Your task to perform on an android device: change the clock display to analog Image 0: 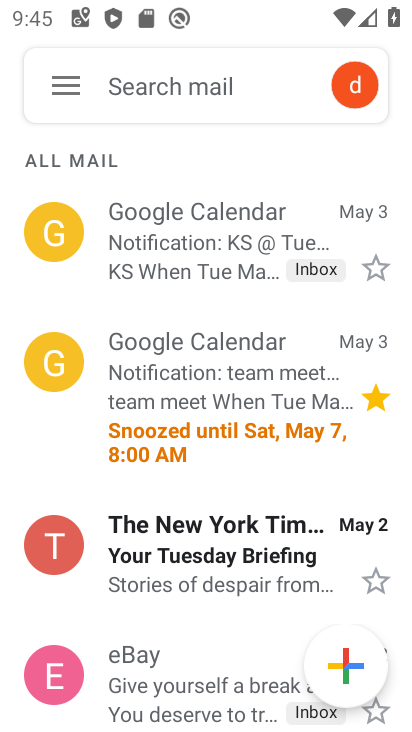
Step 0: press home button
Your task to perform on an android device: change the clock display to analog Image 1: 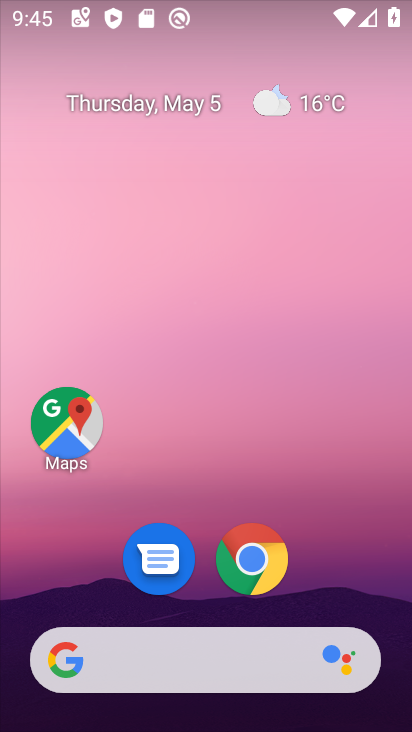
Step 1: drag from (209, 603) to (222, 98)
Your task to perform on an android device: change the clock display to analog Image 2: 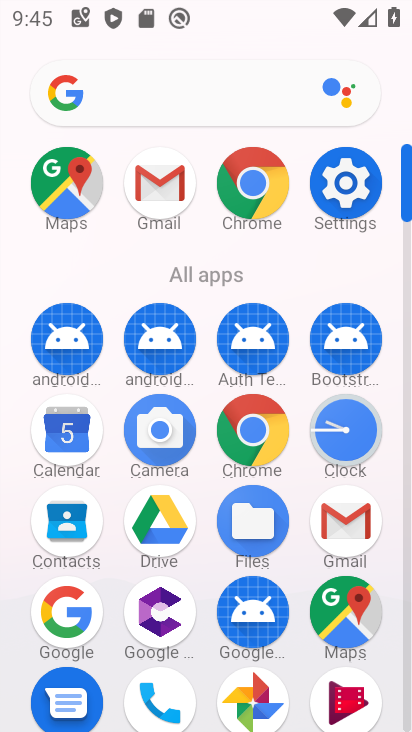
Step 2: click (355, 443)
Your task to perform on an android device: change the clock display to analog Image 3: 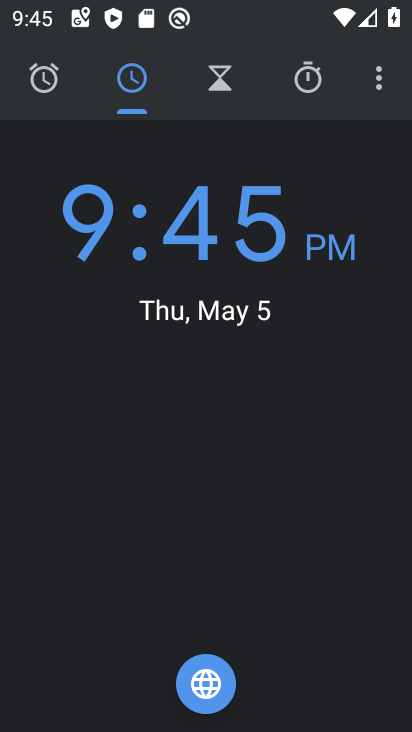
Step 3: click (386, 93)
Your task to perform on an android device: change the clock display to analog Image 4: 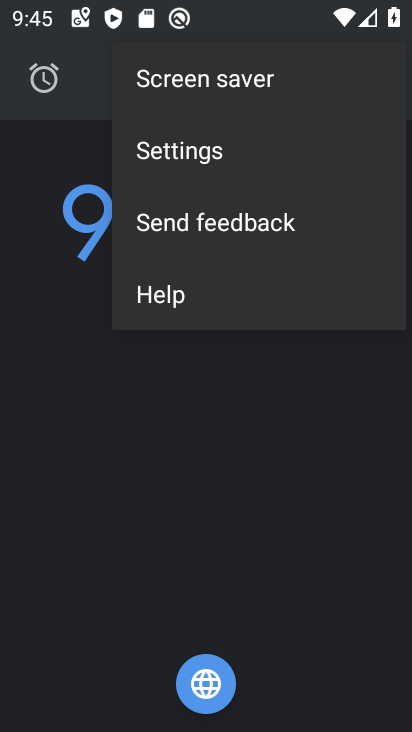
Step 4: click (207, 169)
Your task to perform on an android device: change the clock display to analog Image 5: 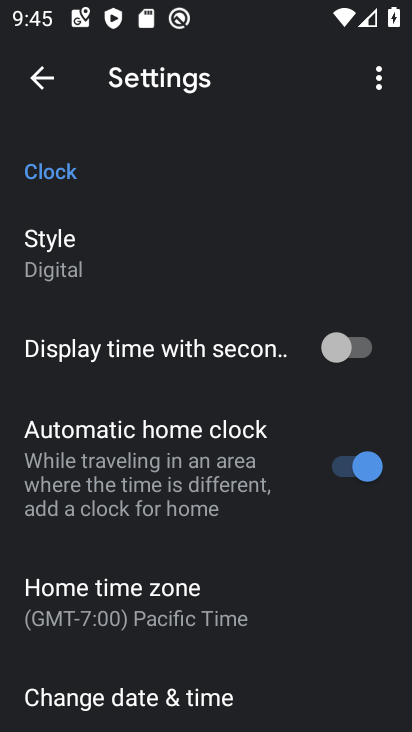
Step 5: click (111, 274)
Your task to perform on an android device: change the clock display to analog Image 6: 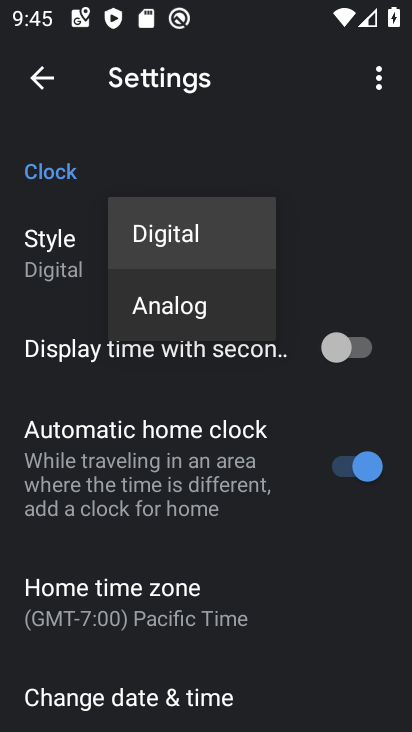
Step 6: click (150, 317)
Your task to perform on an android device: change the clock display to analog Image 7: 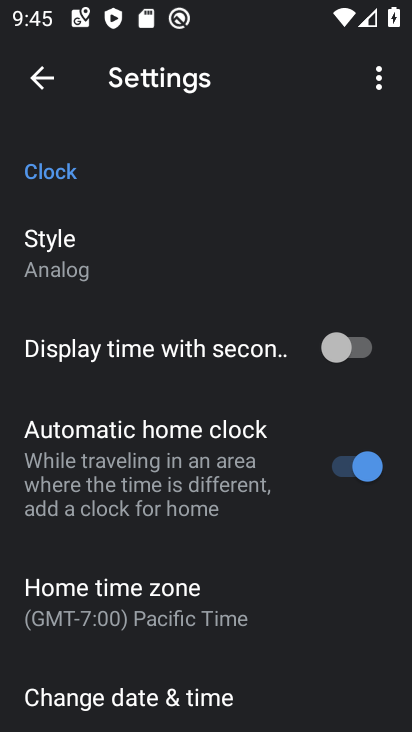
Step 7: task complete